Your task to perform on an android device: find which apps use the phone's location Image 0: 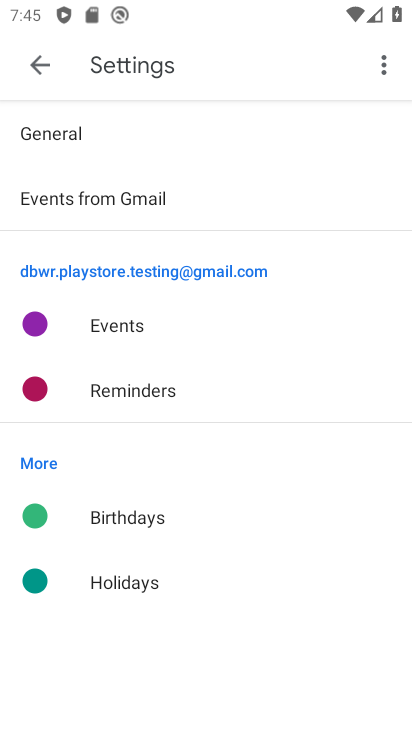
Step 0: press home button
Your task to perform on an android device: find which apps use the phone's location Image 1: 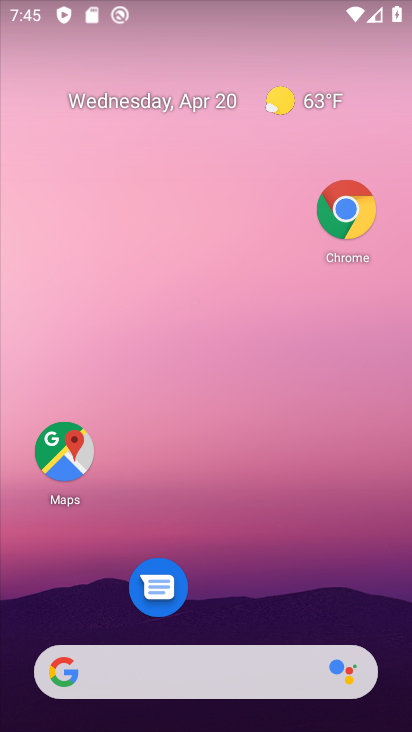
Step 1: drag from (275, 620) to (317, 88)
Your task to perform on an android device: find which apps use the phone's location Image 2: 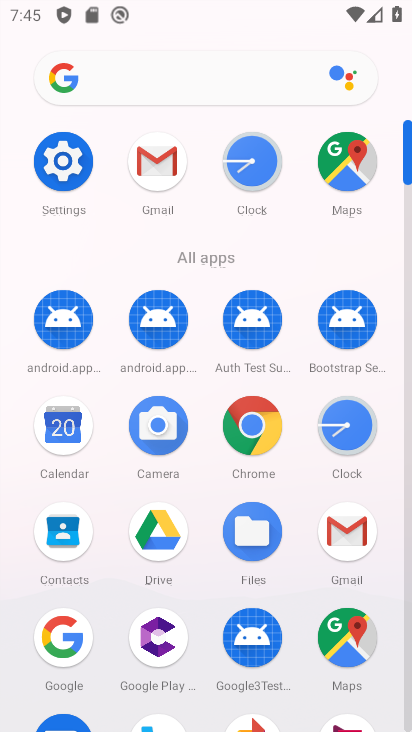
Step 2: click (85, 157)
Your task to perform on an android device: find which apps use the phone's location Image 3: 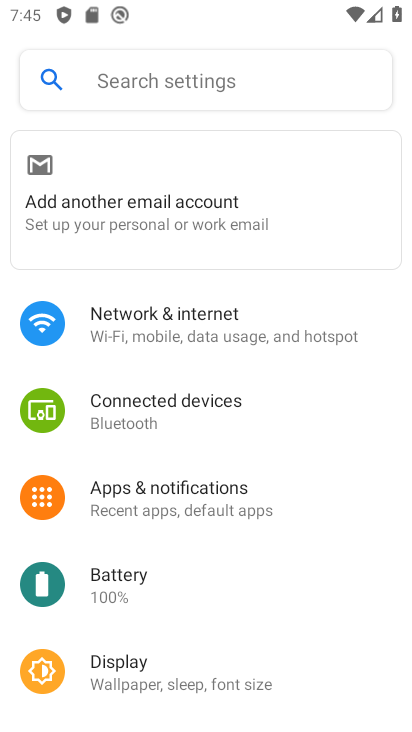
Step 3: drag from (169, 591) to (249, 201)
Your task to perform on an android device: find which apps use the phone's location Image 4: 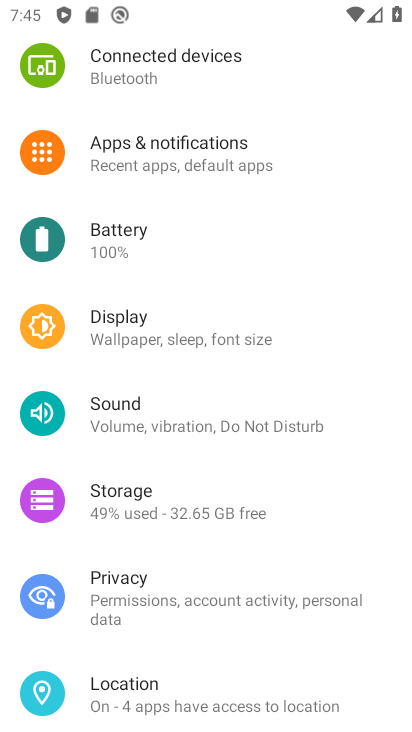
Step 4: click (138, 707)
Your task to perform on an android device: find which apps use the phone's location Image 5: 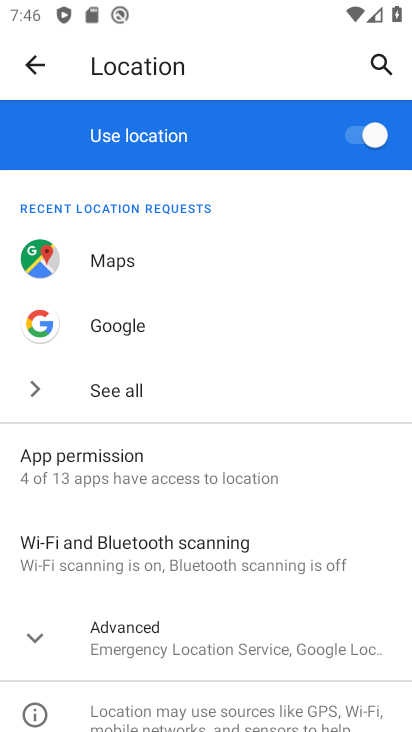
Step 5: click (116, 409)
Your task to perform on an android device: find which apps use the phone's location Image 6: 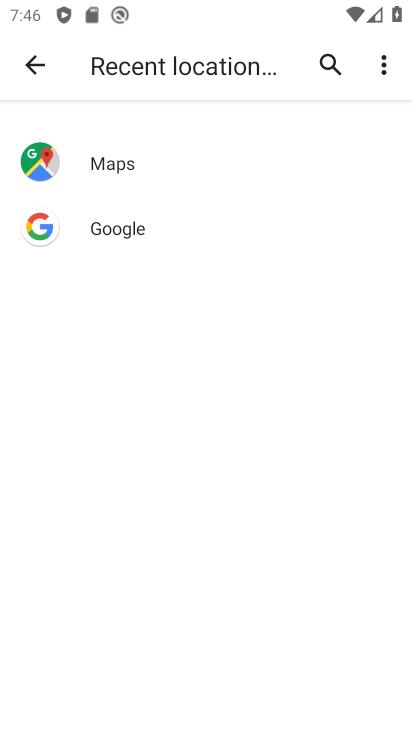
Step 6: task complete